Your task to perform on an android device: Search for sushi restaurants on Maps Image 0: 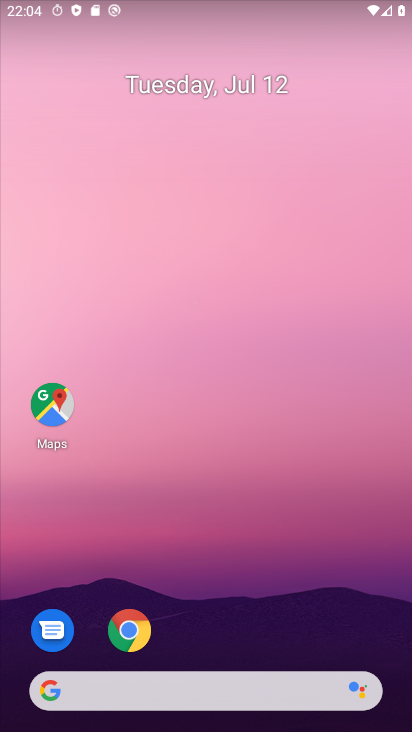
Step 0: click (54, 404)
Your task to perform on an android device: Search for sushi restaurants on Maps Image 1: 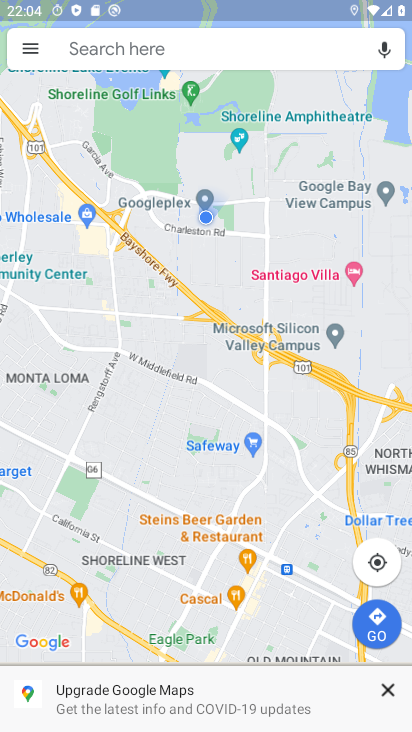
Step 1: click (127, 47)
Your task to perform on an android device: Search for sushi restaurants on Maps Image 2: 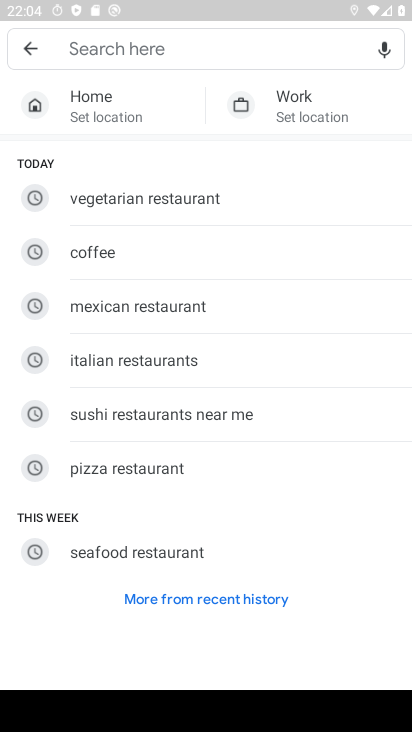
Step 2: click (116, 408)
Your task to perform on an android device: Search for sushi restaurants on Maps Image 3: 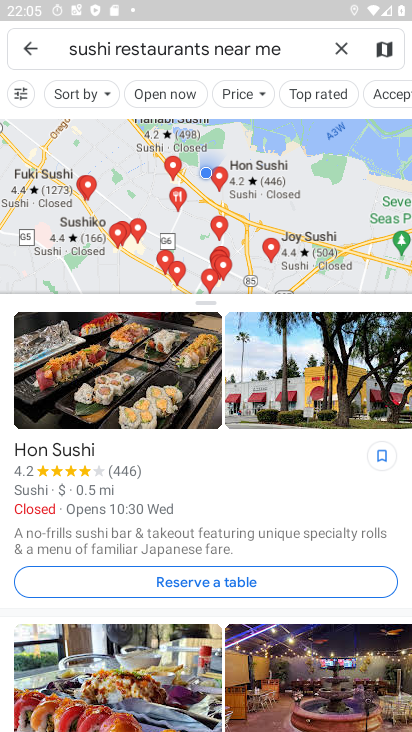
Step 3: task complete